Your task to perform on an android device: turn pop-ups off in chrome Image 0: 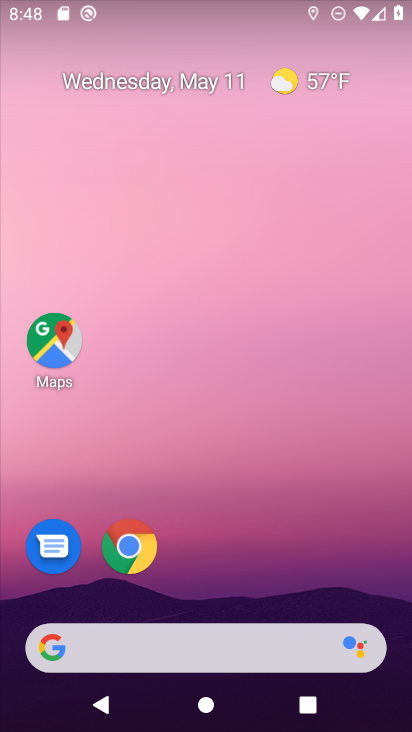
Step 0: click (142, 540)
Your task to perform on an android device: turn pop-ups off in chrome Image 1: 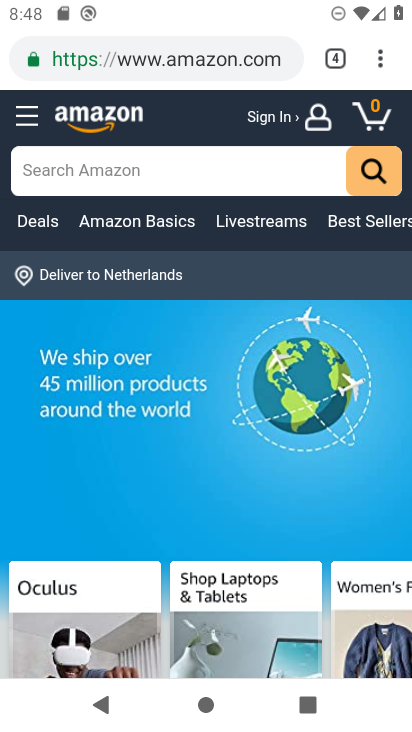
Step 1: drag from (382, 65) to (164, 579)
Your task to perform on an android device: turn pop-ups off in chrome Image 2: 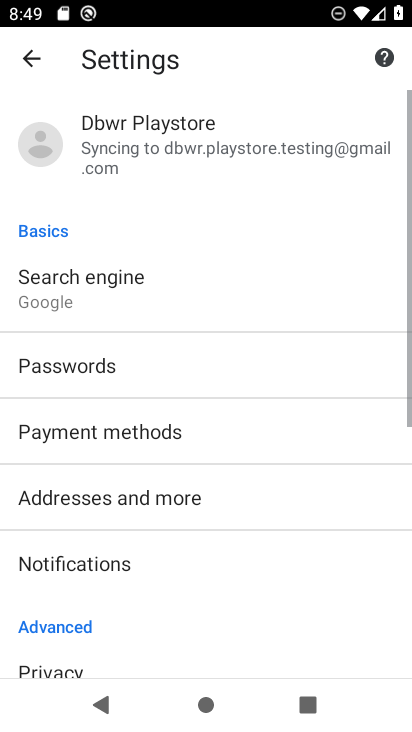
Step 2: drag from (154, 583) to (196, 301)
Your task to perform on an android device: turn pop-ups off in chrome Image 3: 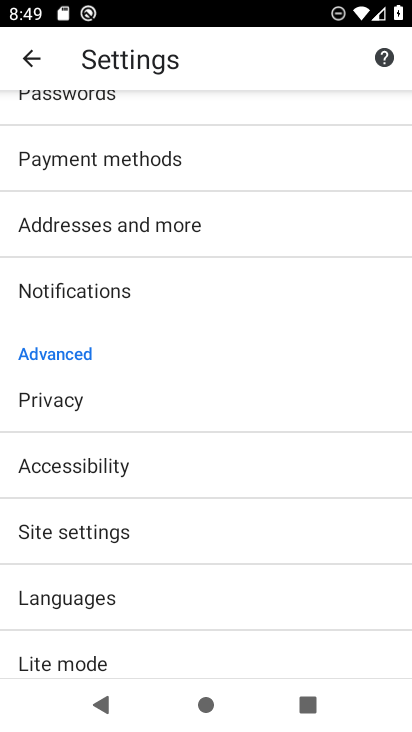
Step 3: click (91, 536)
Your task to perform on an android device: turn pop-ups off in chrome Image 4: 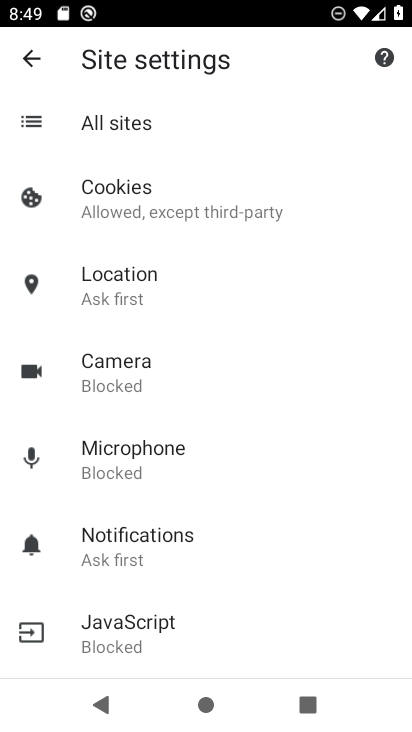
Step 4: drag from (153, 589) to (164, 397)
Your task to perform on an android device: turn pop-ups off in chrome Image 5: 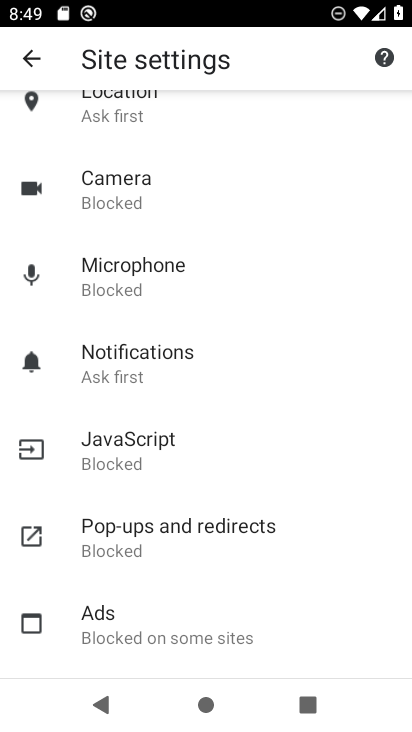
Step 5: drag from (168, 253) to (194, 406)
Your task to perform on an android device: turn pop-ups off in chrome Image 6: 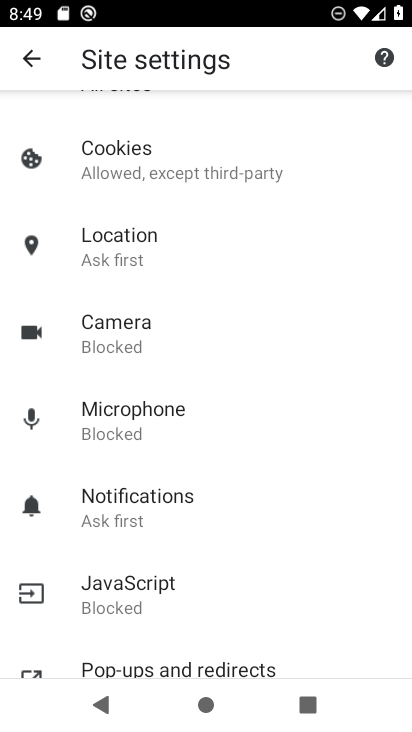
Step 6: click (186, 649)
Your task to perform on an android device: turn pop-ups off in chrome Image 7: 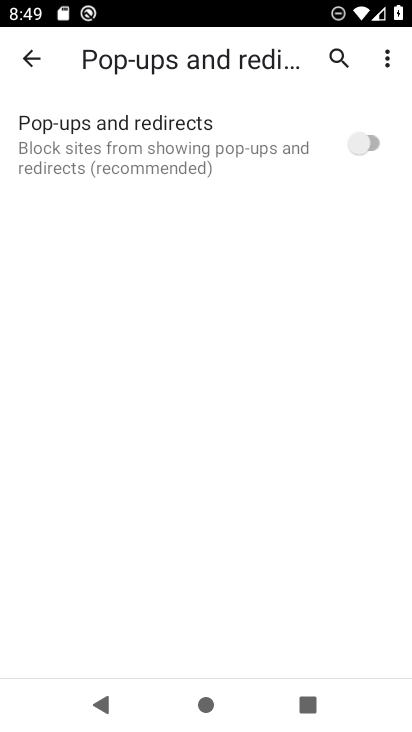
Step 7: task complete